Your task to perform on an android device: move an email to a new category in the gmail app Image 0: 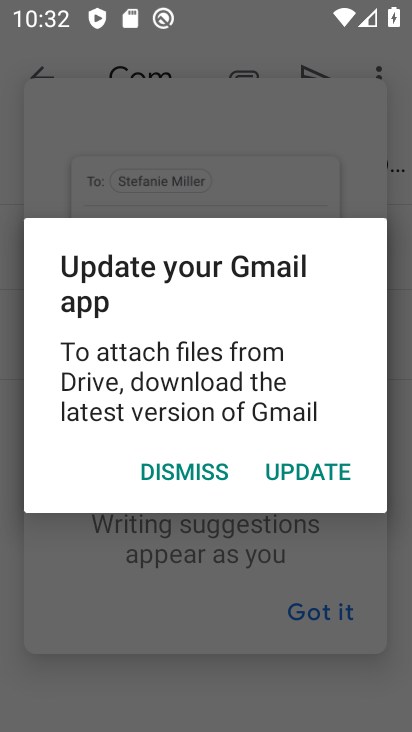
Step 0: press home button
Your task to perform on an android device: move an email to a new category in the gmail app Image 1: 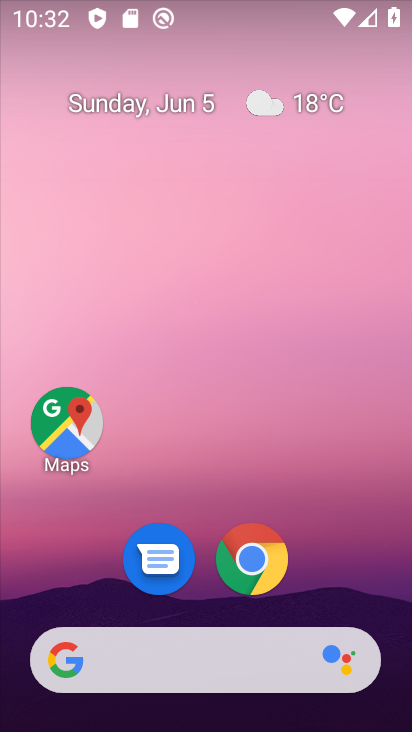
Step 1: drag from (380, 586) to (268, 82)
Your task to perform on an android device: move an email to a new category in the gmail app Image 2: 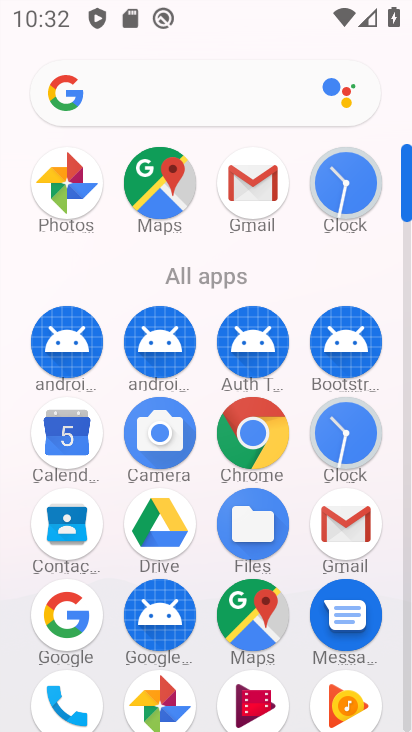
Step 2: click (261, 174)
Your task to perform on an android device: move an email to a new category in the gmail app Image 3: 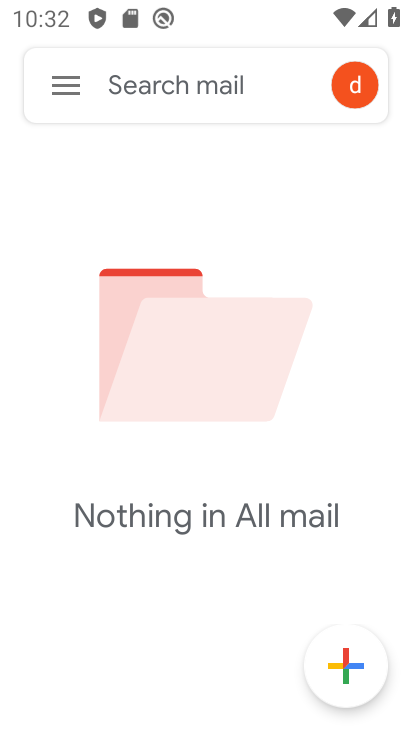
Step 3: task complete